Your task to perform on an android device: Open the phone app and click the voicemail tab. Image 0: 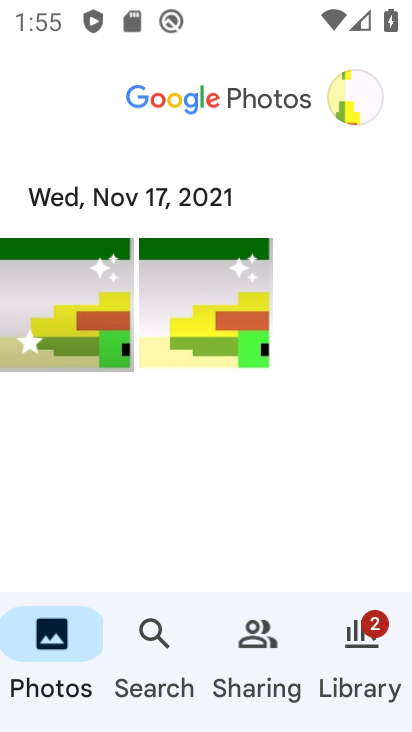
Step 0: press home button
Your task to perform on an android device: Open the phone app and click the voicemail tab. Image 1: 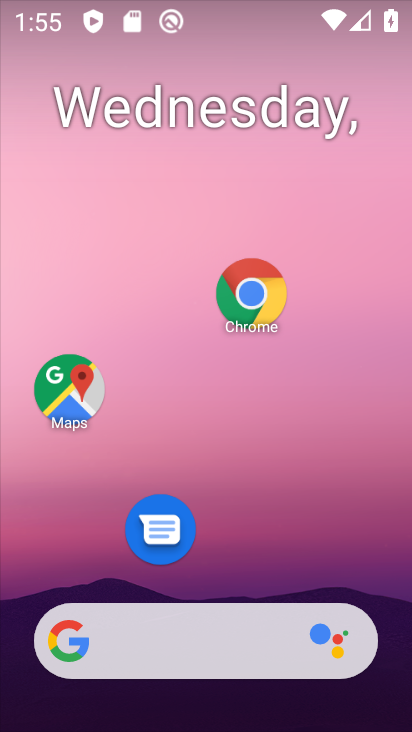
Step 1: drag from (311, 596) to (295, 514)
Your task to perform on an android device: Open the phone app and click the voicemail tab. Image 2: 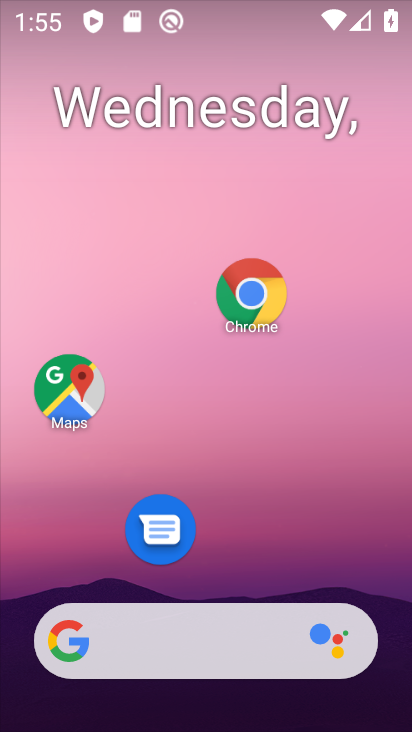
Step 2: drag from (293, 589) to (267, 337)
Your task to perform on an android device: Open the phone app and click the voicemail tab. Image 3: 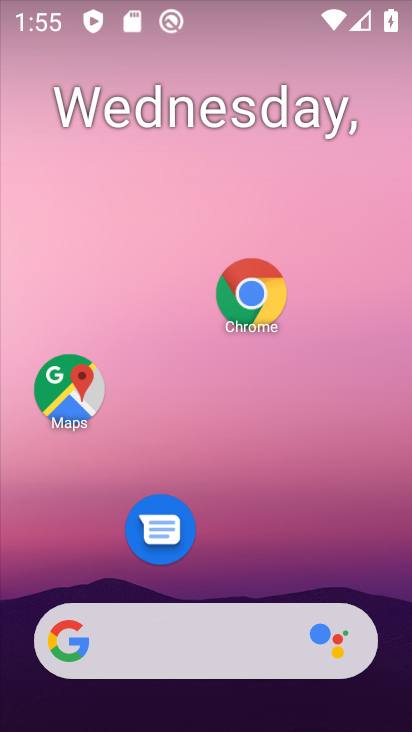
Step 3: drag from (291, 564) to (264, 371)
Your task to perform on an android device: Open the phone app and click the voicemail tab. Image 4: 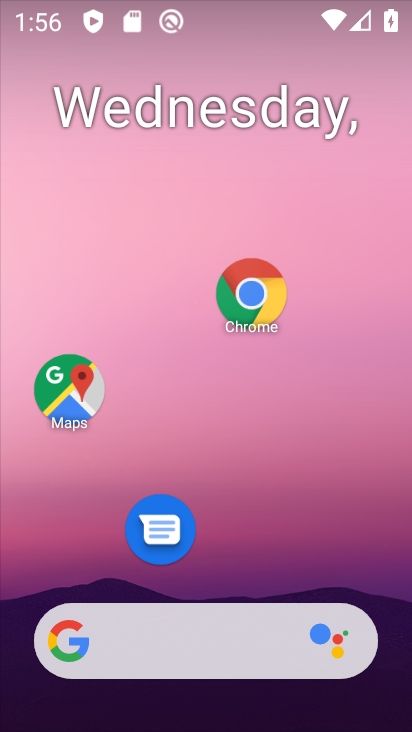
Step 4: drag from (294, 499) to (224, 136)
Your task to perform on an android device: Open the phone app and click the voicemail tab. Image 5: 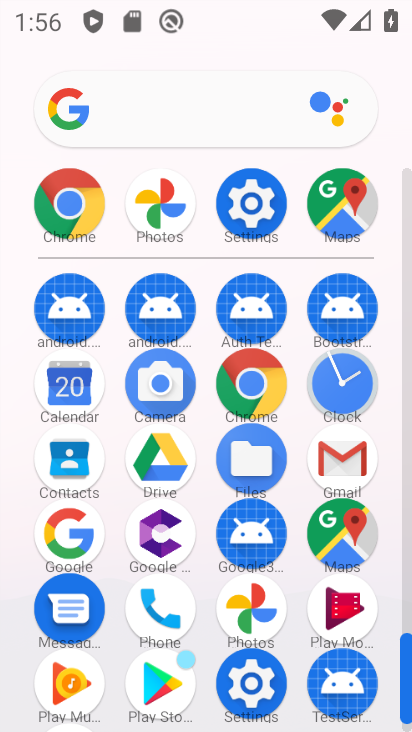
Step 5: click (169, 625)
Your task to perform on an android device: Open the phone app and click the voicemail tab. Image 6: 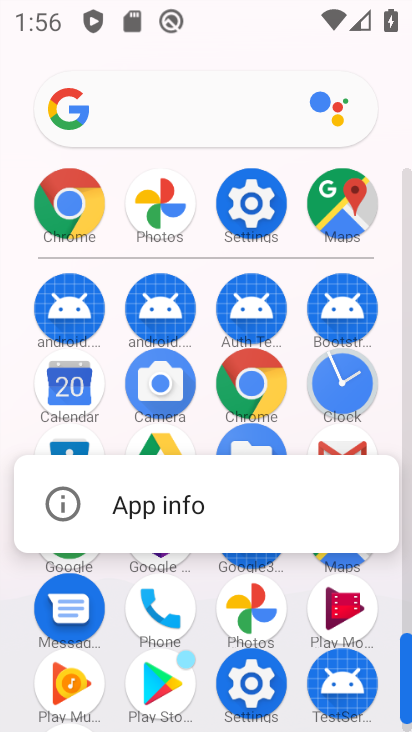
Step 6: click (169, 625)
Your task to perform on an android device: Open the phone app and click the voicemail tab. Image 7: 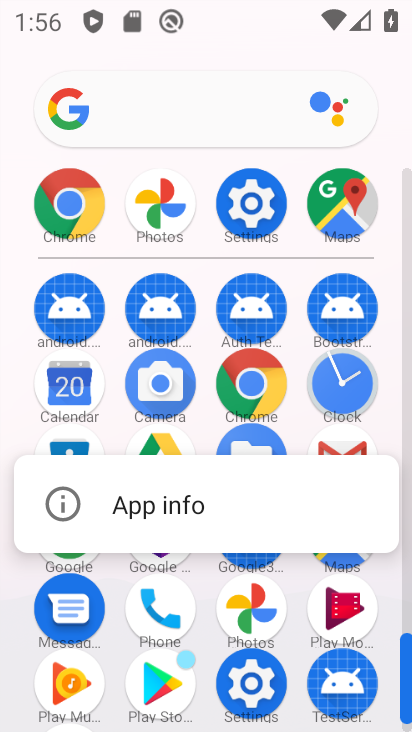
Step 7: click (167, 620)
Your task to perform on an android device: Open the phone app and click the voicemail tab. Image 8: 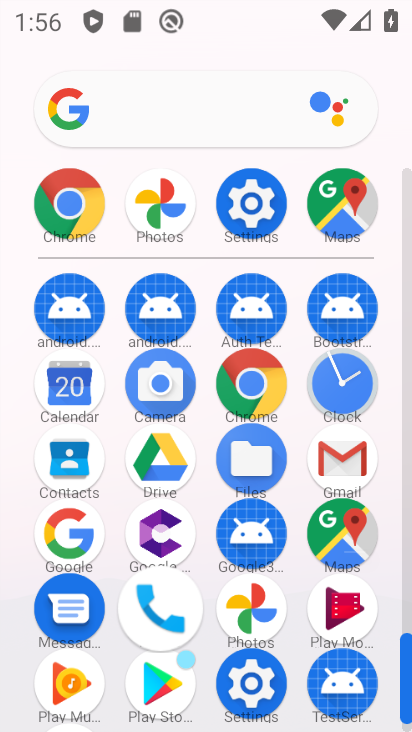
Step 8: click (167, 620)
Your task to perform on an android device: Open the phone app and click the voicemail tab. Image 9: 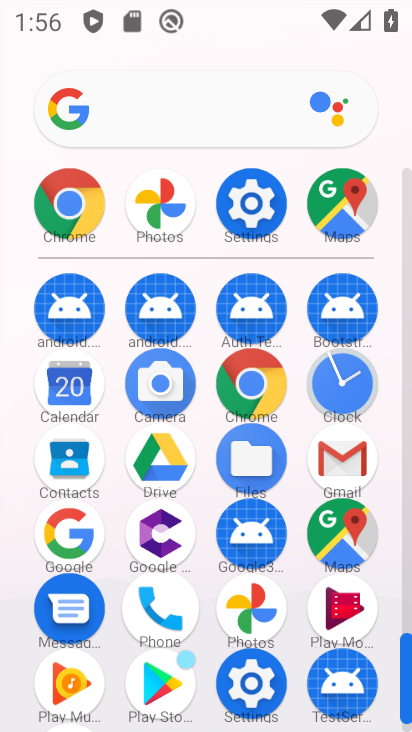
Step 9: click (167, 620)
Your task to perform on an android device: Open the phone app and click the voicemail tab. Image 10: 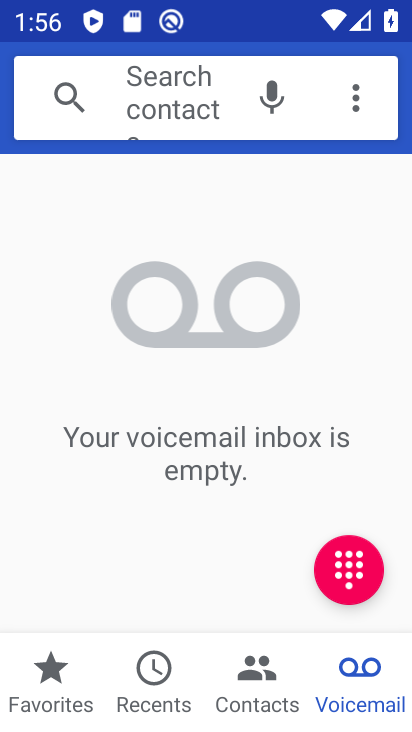
Step 10: task complete